Your task to perform on an android device: turn notification dots on Image 0: 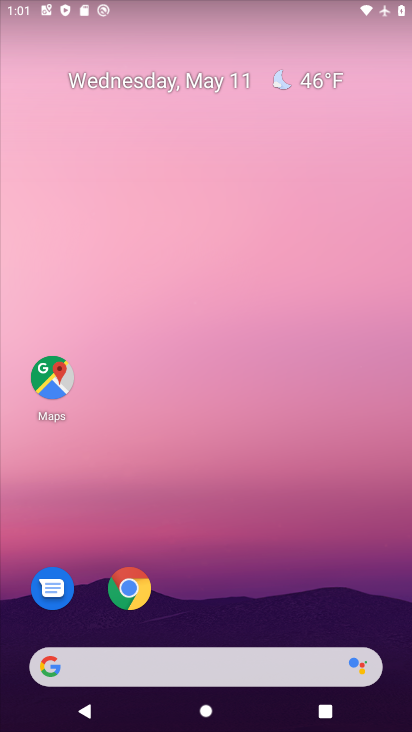
Step 0: click (248, 94)
Your task to perform on an android device: turn notification dots on Image 1: 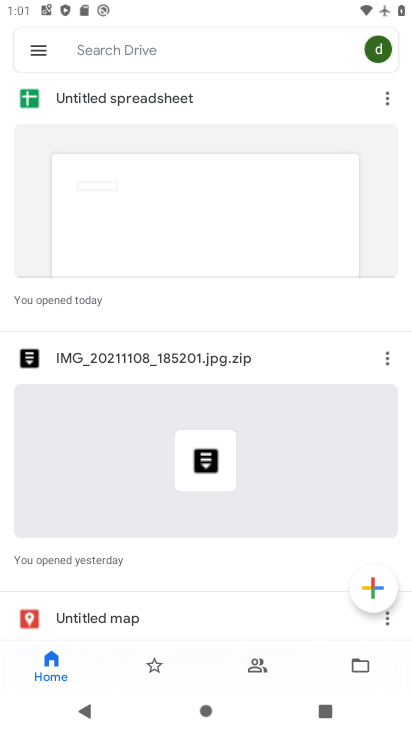
Step 1: press home button
Your task to perform on an android device: turn notification dots on Image 2: 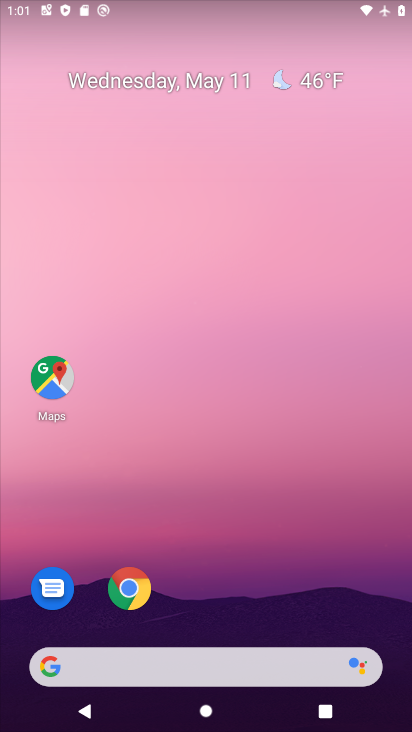
Step 2: drag from (318, 545) to (309, 96)
Your task to perform on an android device: turn notification dots on Image 3: 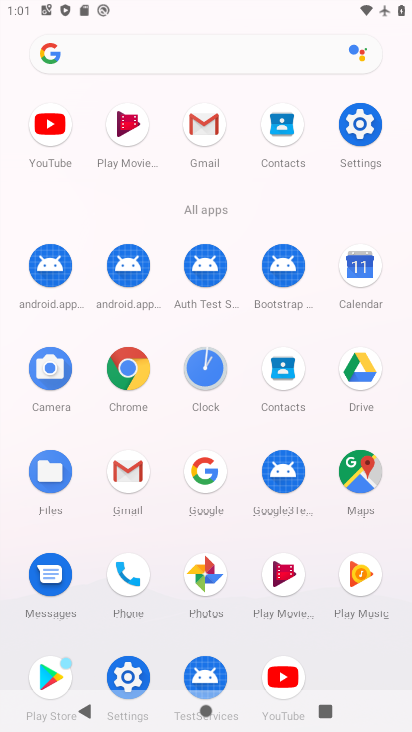
Step 3: click (378, 136)
Your task to perform on an android device: turn notification dots on Image 4: 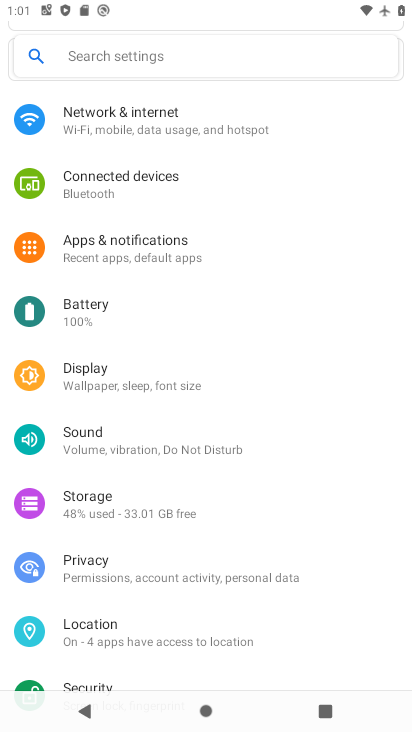
Step 4: click (196, 235)
Your task to perform on an android device: turn notification dots on Image 5: 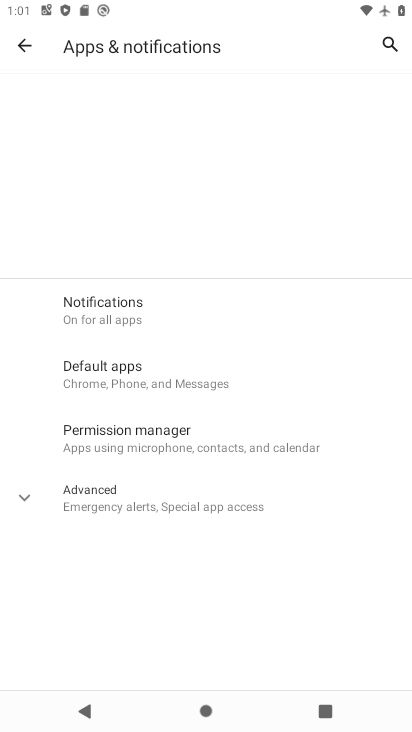
Step 5: drag from (239, 382) to (266, 315)
Your task to perform on an android device: turn notification dots on Image 6: 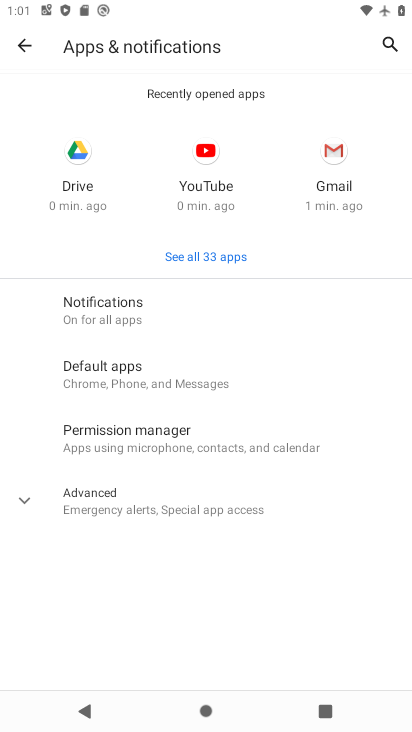
Step 6: click (174, 305)
Your task to perform on an android device: turn notification dots on Image 7: 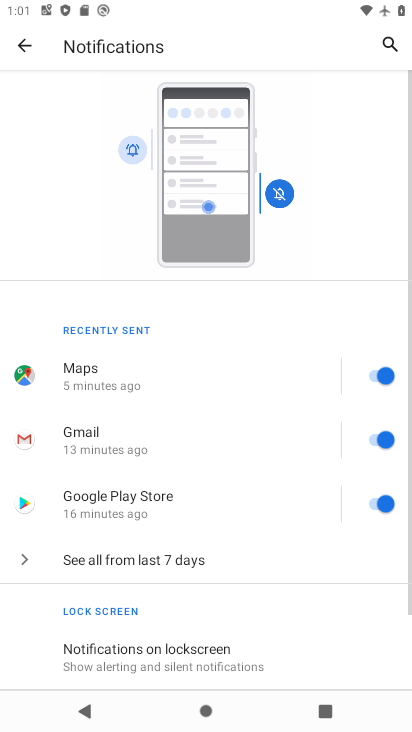
Step 7: drag from (207, 647) to (241, 268)
Your task to perform on an android device: turn notification dots on Image 8: 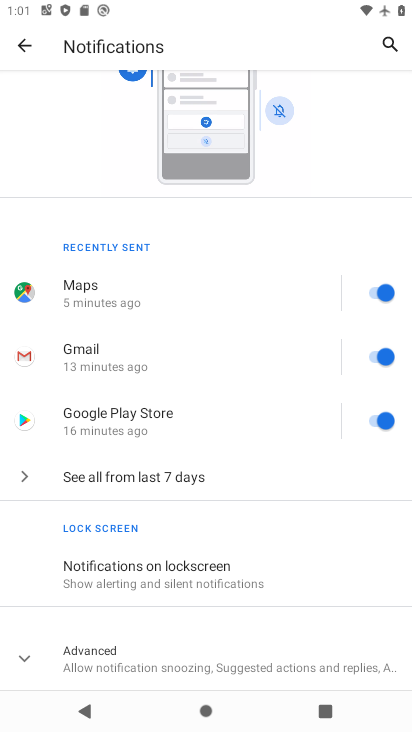
Step 8: click (19, 661)
Your task to perform on an android device: turn notification dots on Image 9: 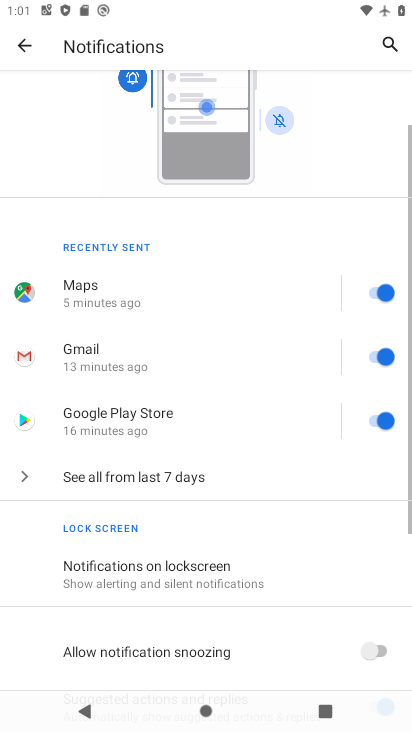
Step 9: task complete